Your task to perform on an android device: Go to Maps Image 0: 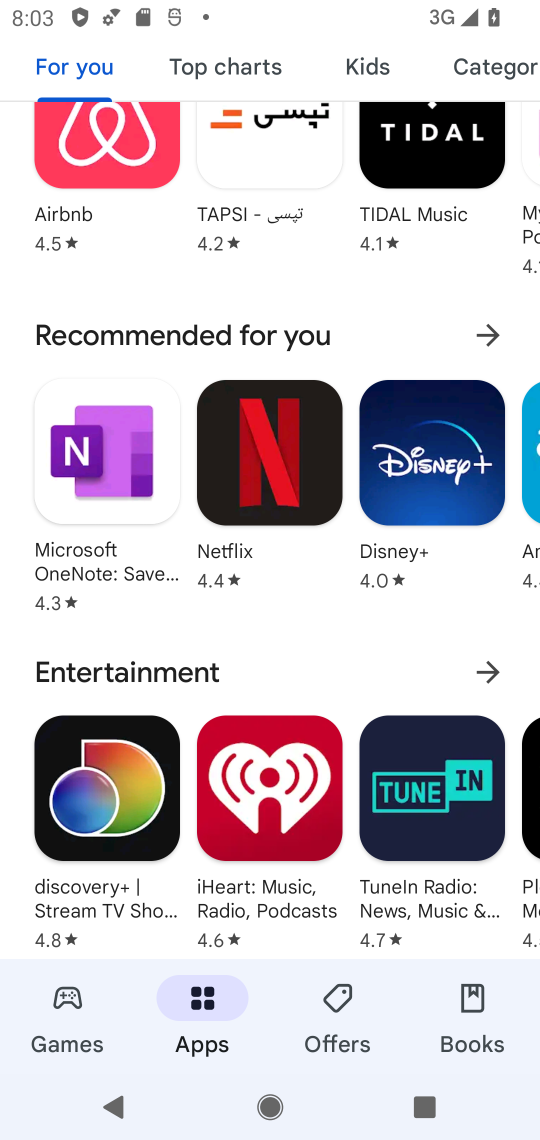
Step 0: press home button
Your task to perform on an android device: Go to Maps Image 1: 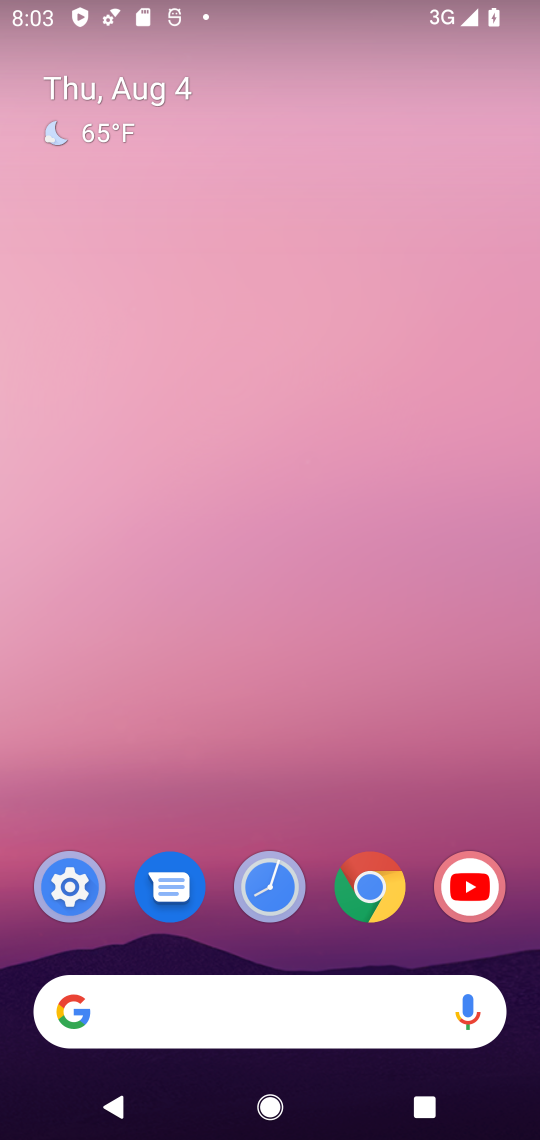
Step 1: drag from (252, 665) to (254, 565)
Your task to perform on an android device: Go to Maps Image 2: 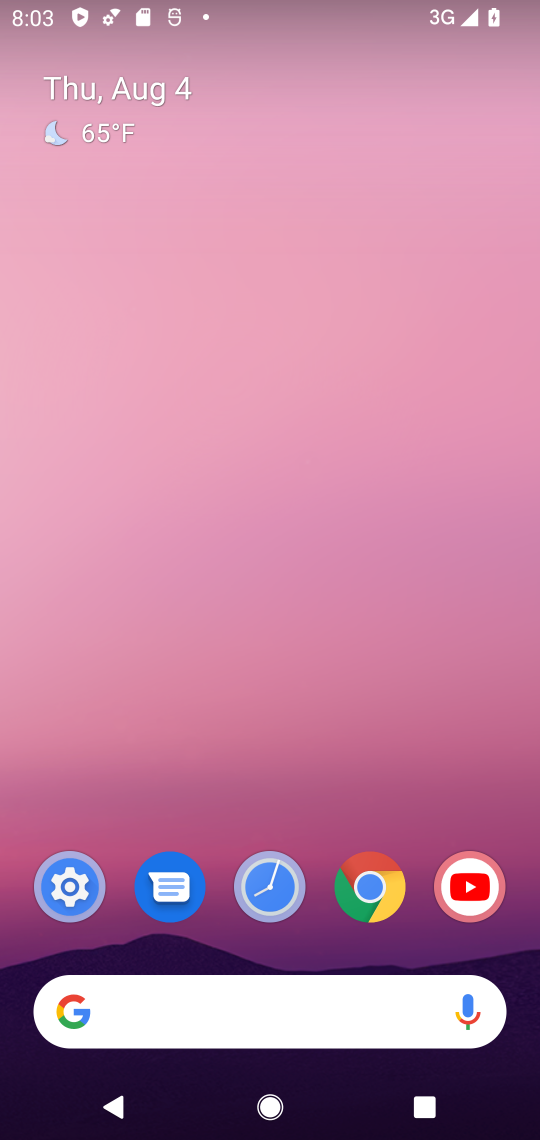
Step 2: drag from (244, 995) to (257, 402)
Your task to perform on an android device: Go to Maps Image 3: 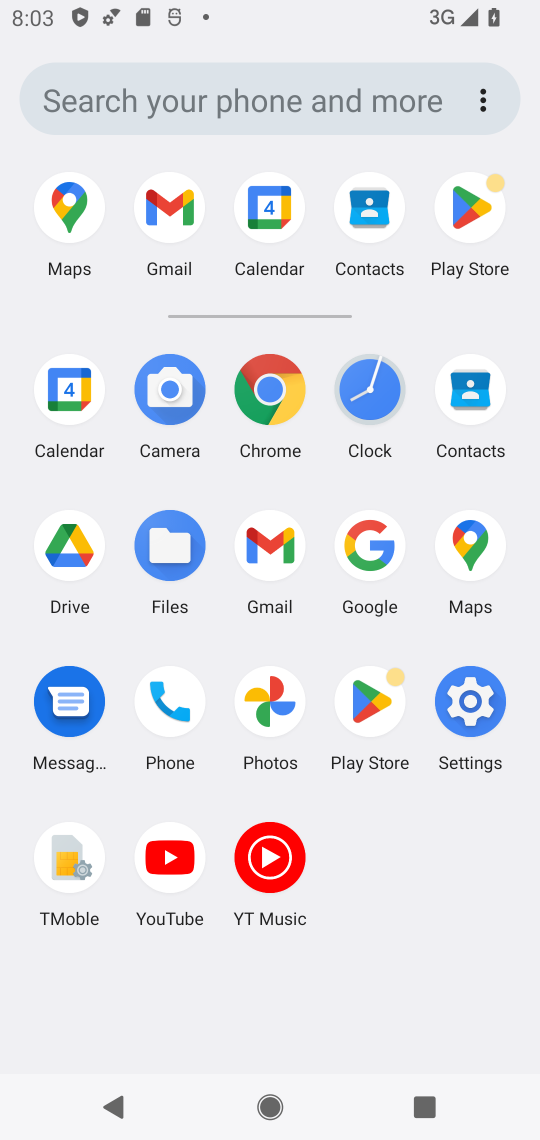
Step 3: click (449, 543)
Your task to perform on an android device: Go to Maps Image 4: 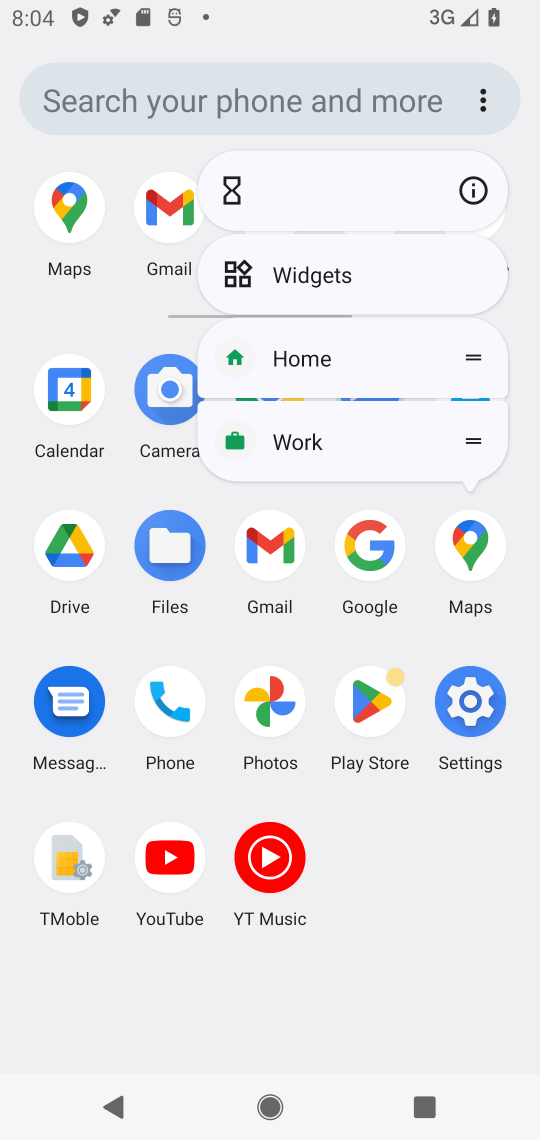
Step 4: click (77, 562)
Your task to perform on an android device: Go to Maps Image 5: 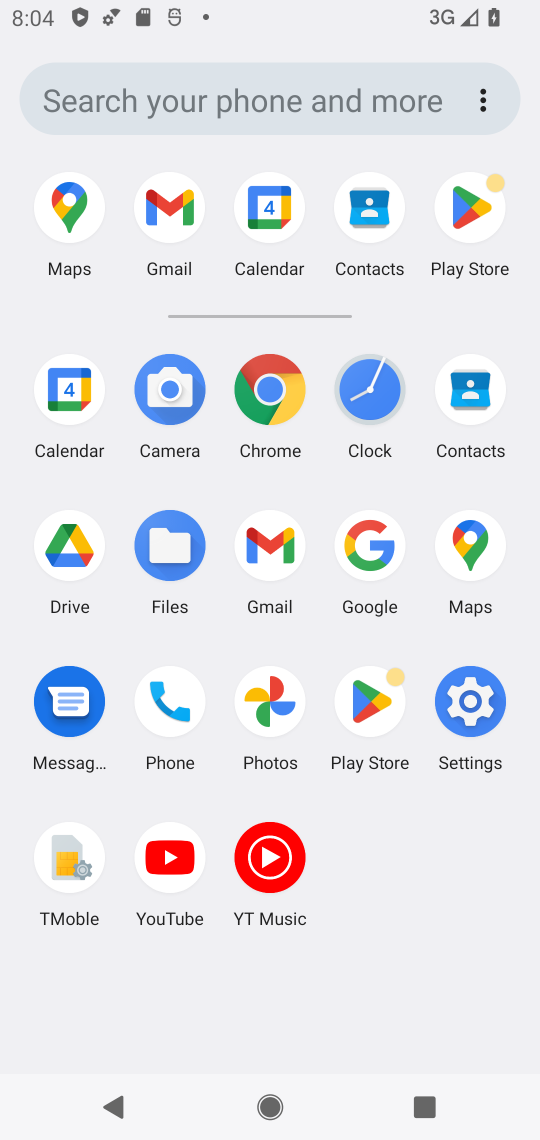
Step 5: click (465, 543)
Your task to perform on an android device: Go to Maps Image 6: 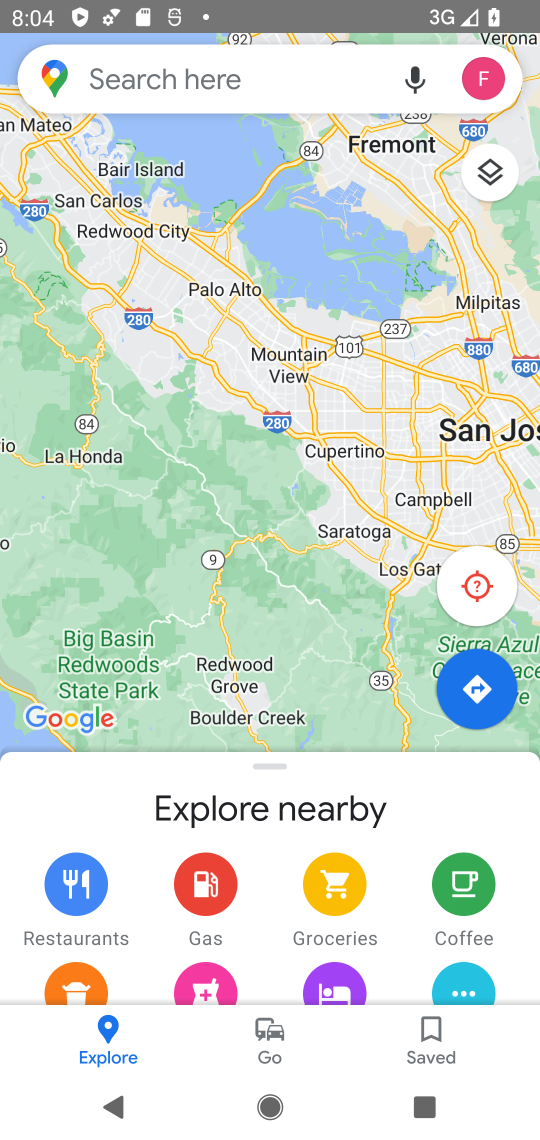
Step 6: task complete